Your task to perform on an android device: turn off sleep mode Image 0: 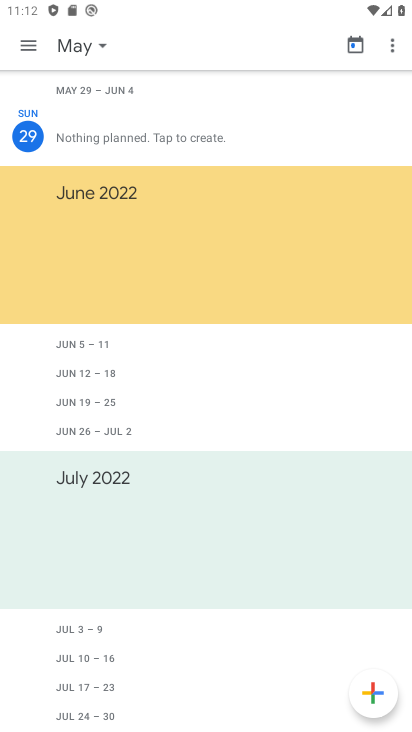
Step 0: press home button
Your task to perform on an android device: turn off sleep mode Image 1: 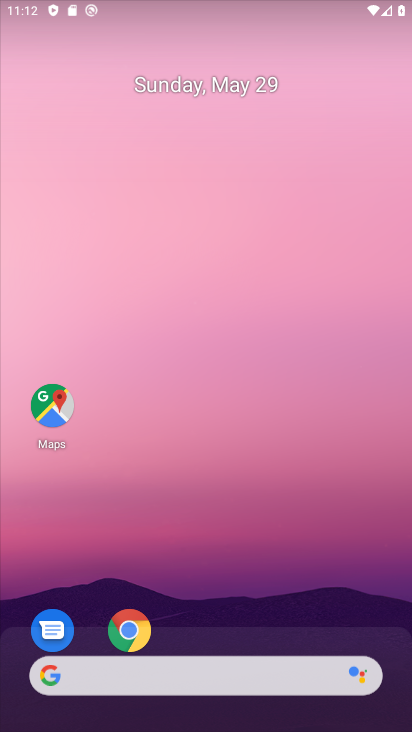
Step 1: drag from (218, 698) to (179, 229)
Your task to perform on an android device: turn off sleep mode Image 2: 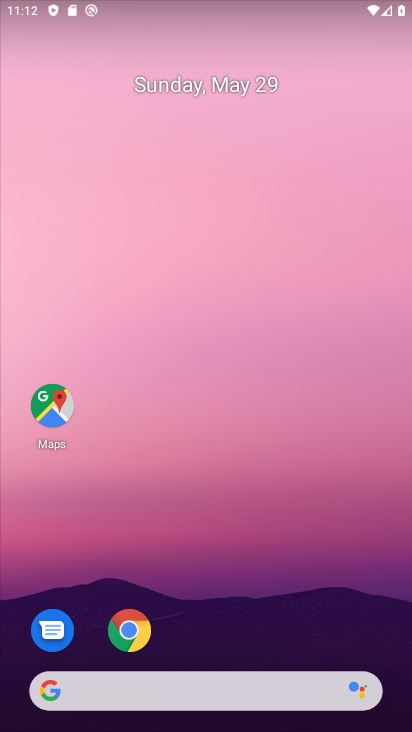
Step 2: drag from (226, 705) to (192, 297)
Your task to perform on an android device: turn off sleep mode Image 3: 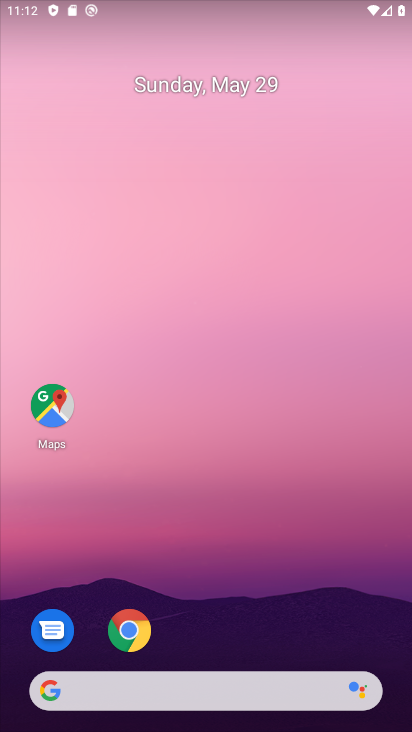
Step 3: drag from (259, 697) to (177, 63)
Your task to perform on an android device: turn off sleep mode Image 4: 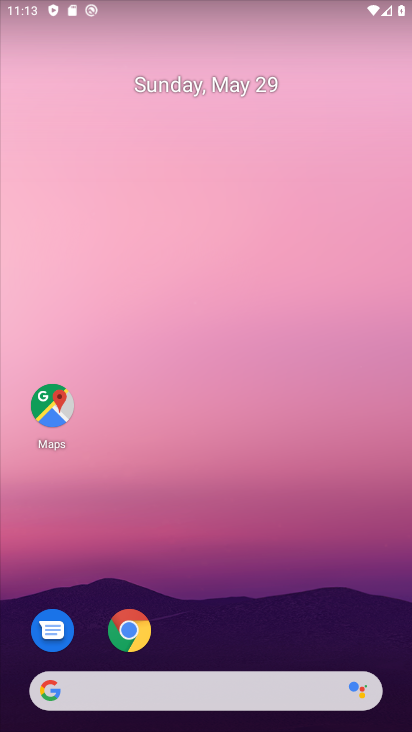
Step 4: drag from (236, 716) to (206, 86)
Your task to perform on an android device: turn off sleep mode Image 5: 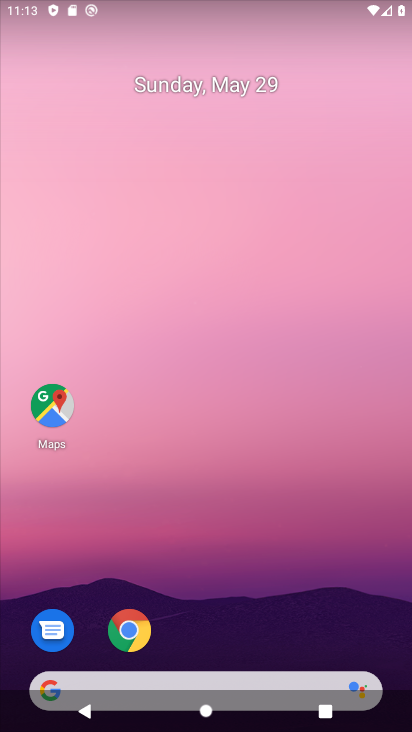
Step 5: drag from (259, 664) to (237, 85)
Your task to perform on an android device: turn off sleep mode Image 6: 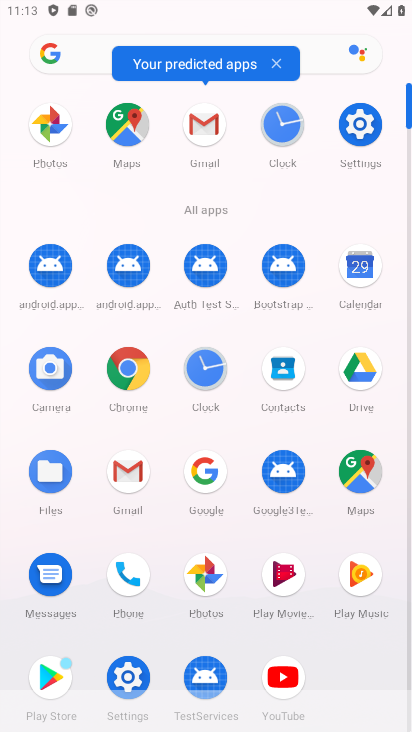
Step 6: click (145, 656)
Your task to perform on an android device: turn off sleep mode Image 7: 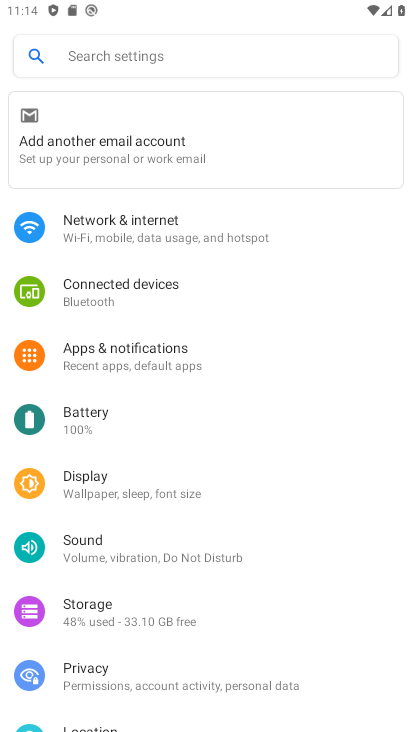
Step 7: click (147, 48)
Your task to perform on an android device: turn off sleep mode Image 8: 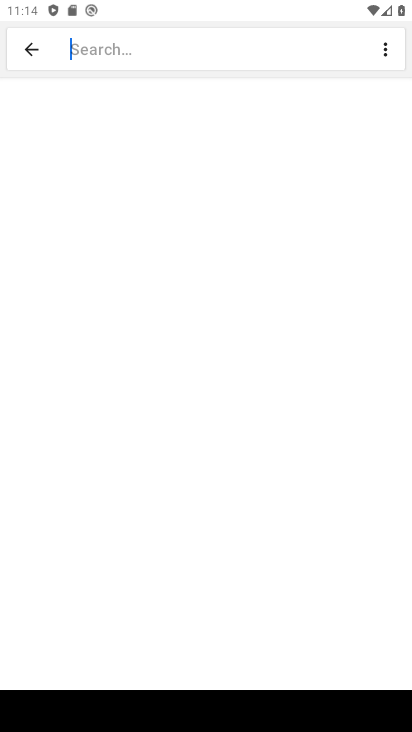
Step 8: drag from (398, 707) to (367, 525)
Your task to perform on an android device: turn off sleep mode Image 9: 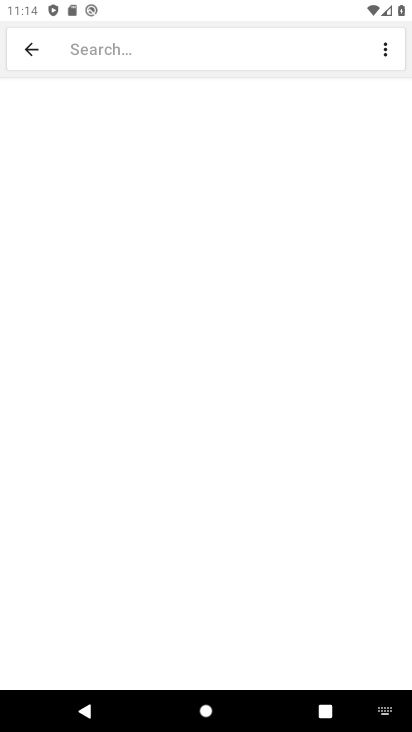
Step 9: click (390, 707)
Your task to perform on an android device: turn off sleep mode Image 10: 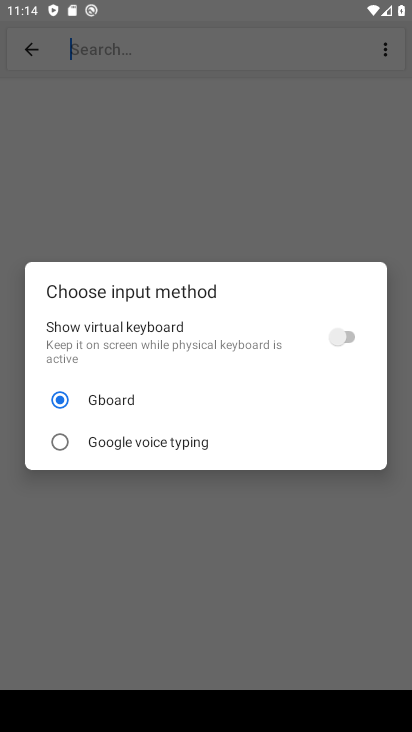
Step 10: click (347, 343)
Your task to perform on an android device: turn off sleep mode Image 11: 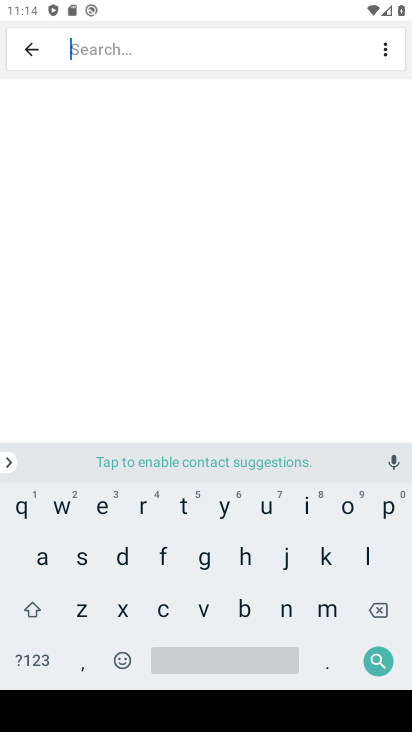
Step 11: click (80, 549)
Your task to perform on an android device: turn off sleep mode Image 12: 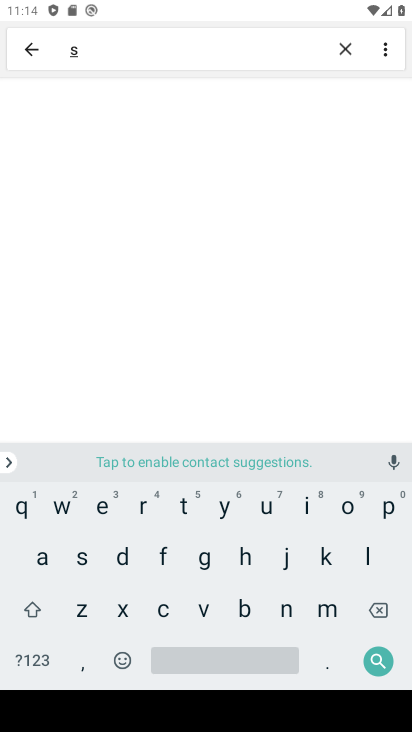
Step 12: click (369, 557)
Your task to perform on an android device: turn off sleep mode Image 13: 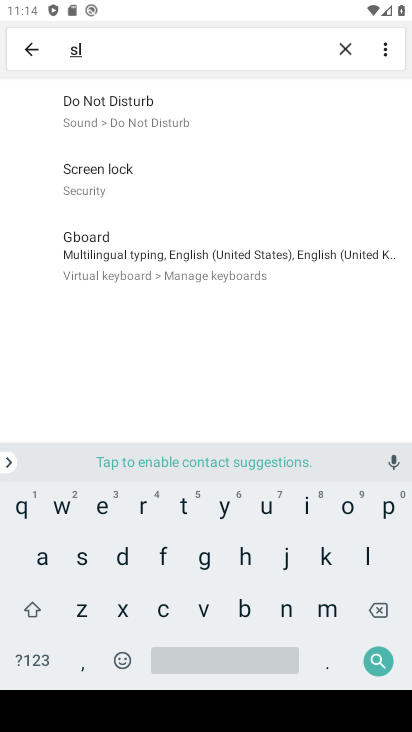
Step 13: click (146, 107)
Your task to perform on an android device: turn off sleep mode Image 14: 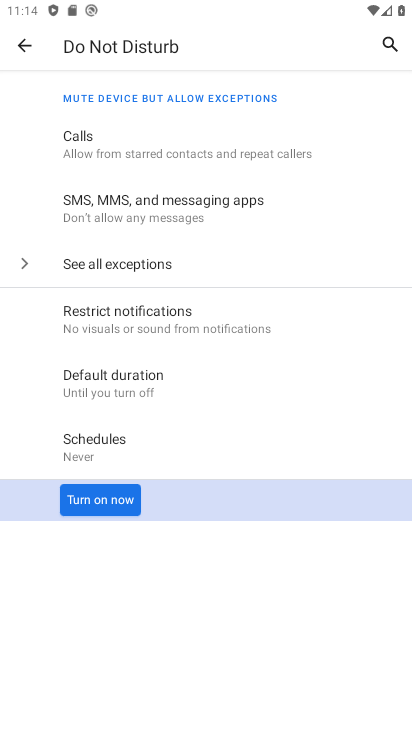
Step 14: task complete